Your task to perform on an android device: Set the phone to "Do not disturb". Image 0: 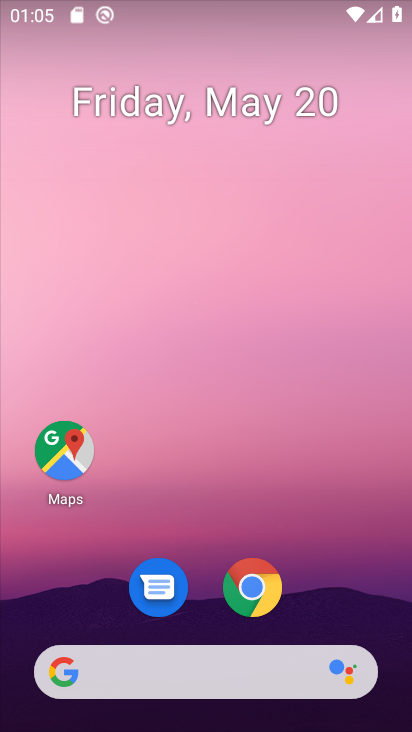
Step 0: drag from (356, 615) to (367, 184)
Your task to perform on an android device: Set the phone to "Do not disturb". Image 1: 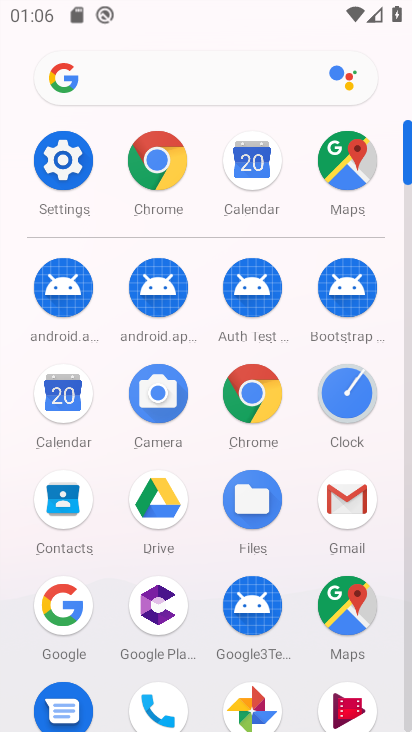
Step 1: click (72, 210)
Your task to perform on an android device: Set the phone to "Do not disturb". Image 2: 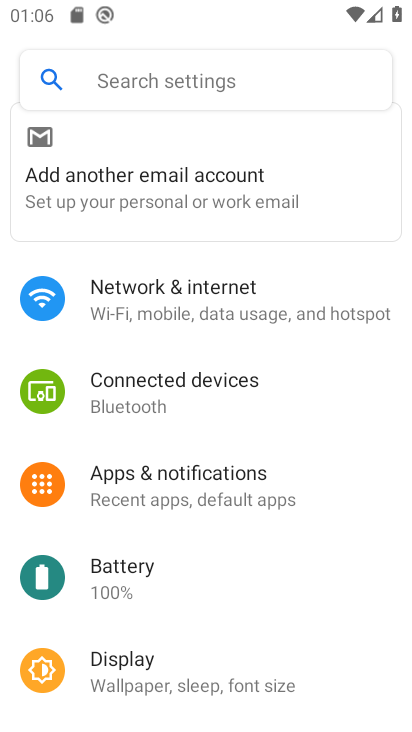
Step 2: drag from (369, 605) to (352, 488)
Your task to perform on an android device: Set the phone to "Do not disturb". Image 3: 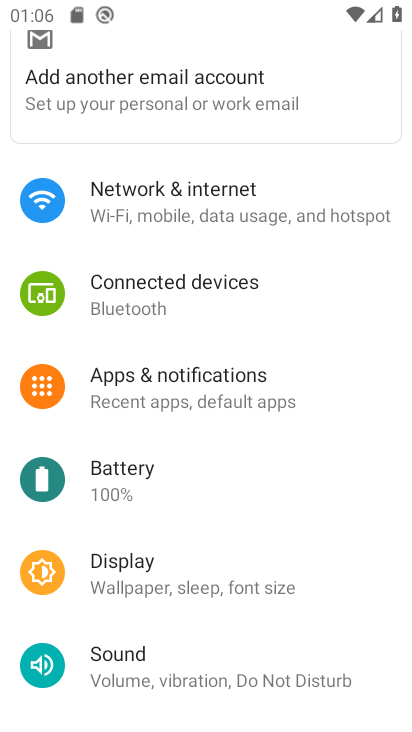
Step 3: drag from (347, 599) to (341, 517)
Your task to perform on an android device: Set the phone to "Do not disturb". Image 4: 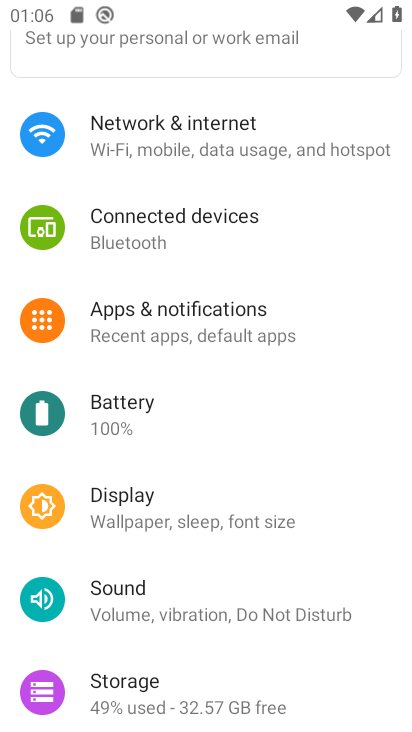
Step 4: drag from (357, 658) to (378, 531)
Your task to perform on an android device: Set the phone to "Do not disturb". Image 5: 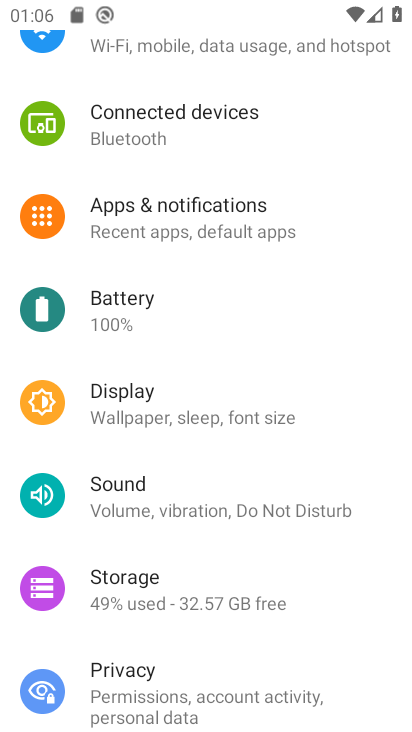
Step 5: drag from (392, 673) to (385, 590)
Your task to perform on an android device: Set the phone to "Do not disturb". Image 6: 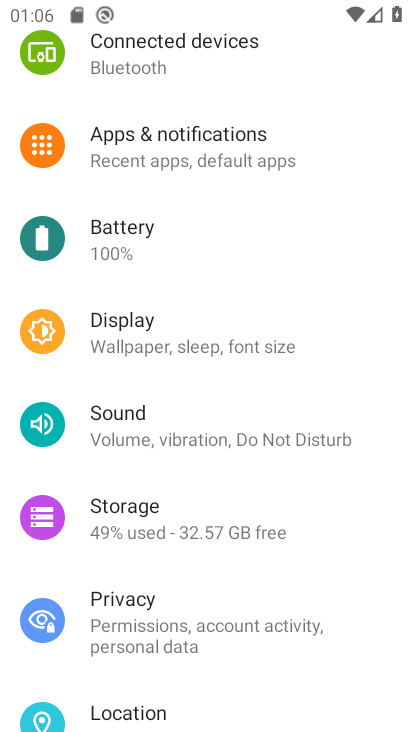
Step 6: drag from (321, 669) to (346, 486)
Your task to perform on an android device: Set the phone to "Do not disturb". Image 7: 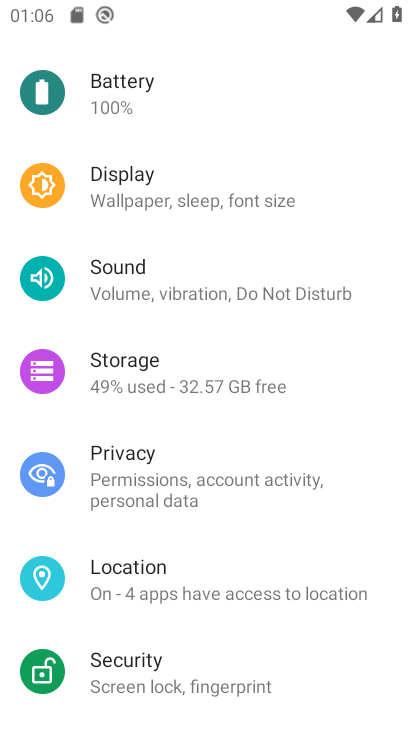
Step 7: drag from (376, 620) to (338, 520)
Your task to perform on an android device: Set the phone to "Do not disturb". Image 8: 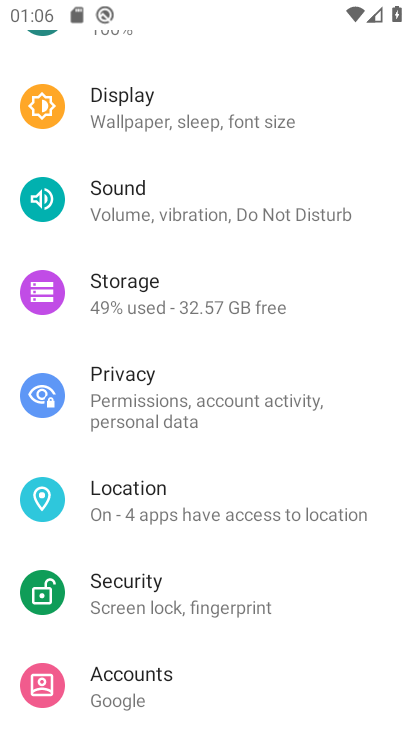
Step 8: drag from (352, 633) to (350, 539)
Your task to perform on an android device: Set the phone to "Do not disturb". Image 9: 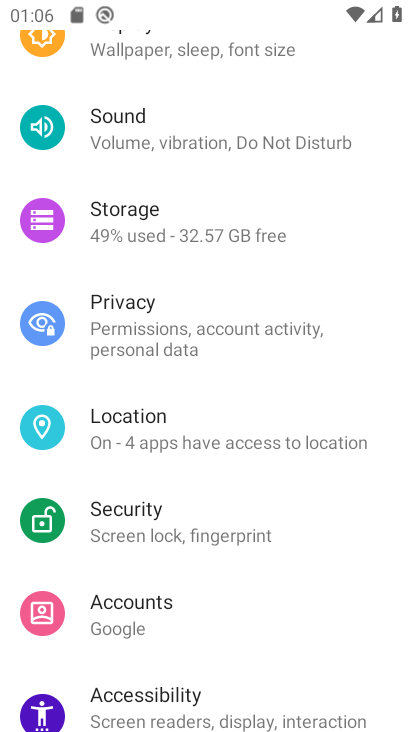
Step 9: drag from (361, 689) to (341, 578)
Your task to perform on an android device: Set the phone to "Do not disturb". Image 10: 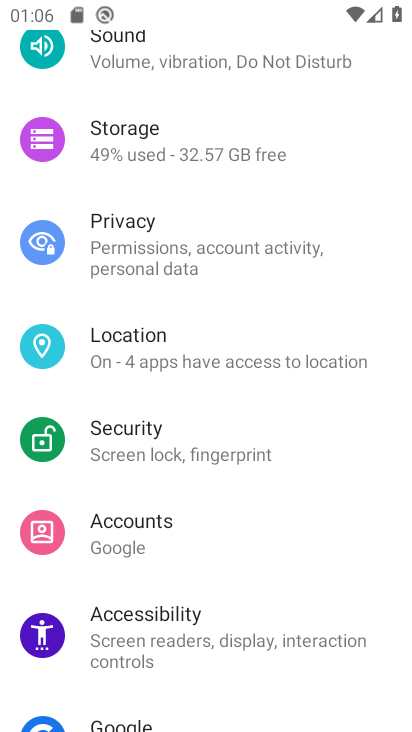
Step 10: drag from (368, 682) to (365, 595)
Your task to perform on an android device: Set the phone to "Do not disturb". Image 11: 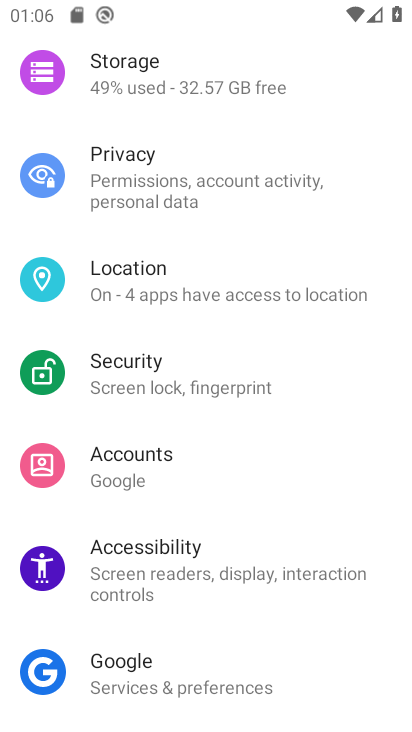
Step 11: drag from (381, 679) to (362, 597)
Your task to perform on an android device: Set the phone to "Do not disturb". Image 12: 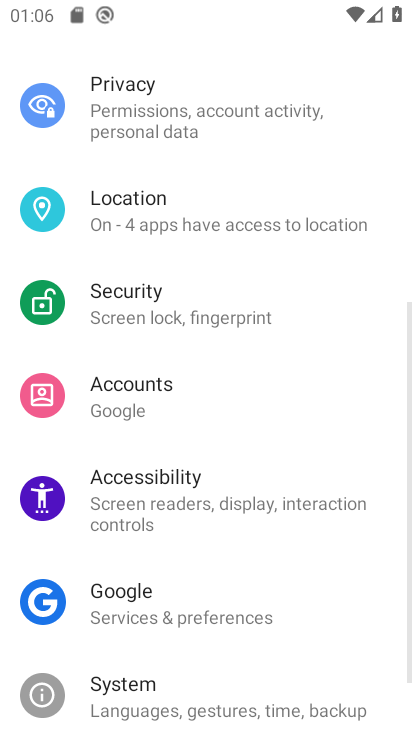
Step 12: drag from (364, 688) to (353, 622)
Your task to perform on an android device: Set the phone to "Do not disturb". Image 13: 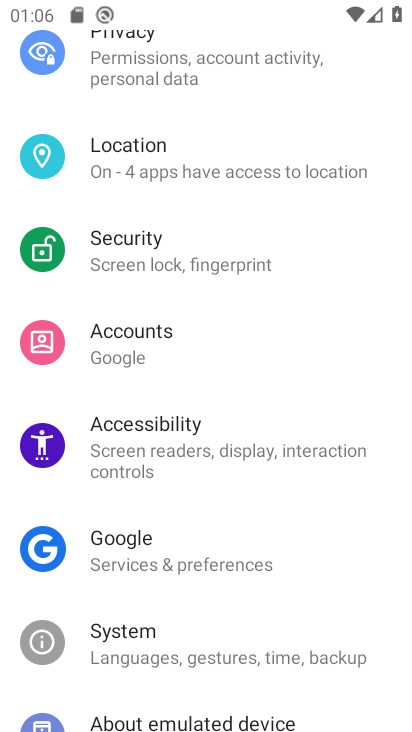
Step 13: drag from (306, 520) to (318, 613)
Your task to perform on an android device: Set the phone to "Do not disturb". Image 14: 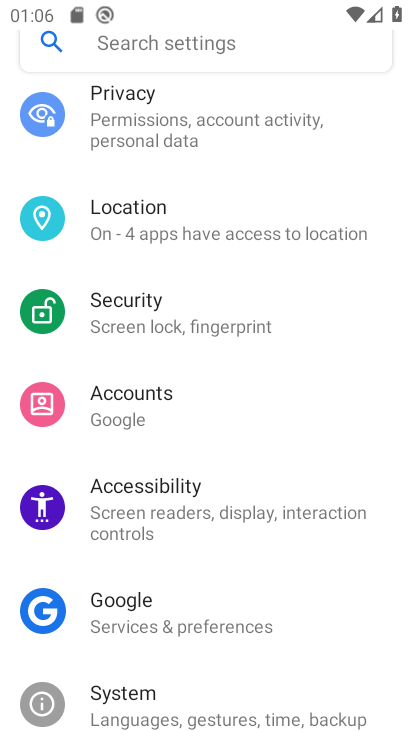
Step 14: drag from (308, 436) to (336, 546)
Your task to perform on an android device: Set the phone to "Do not disturb". Image 15: 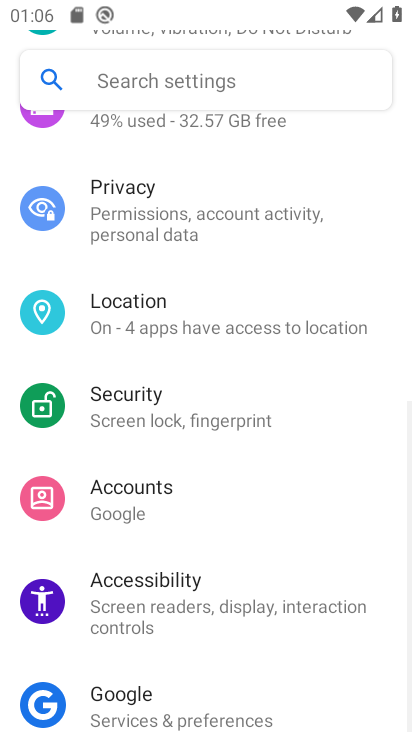
Step 15: drag from (332, 461) to (341, 549)
Your task to perform on an android device: Set the phone to "Do not disturb". Image 16: 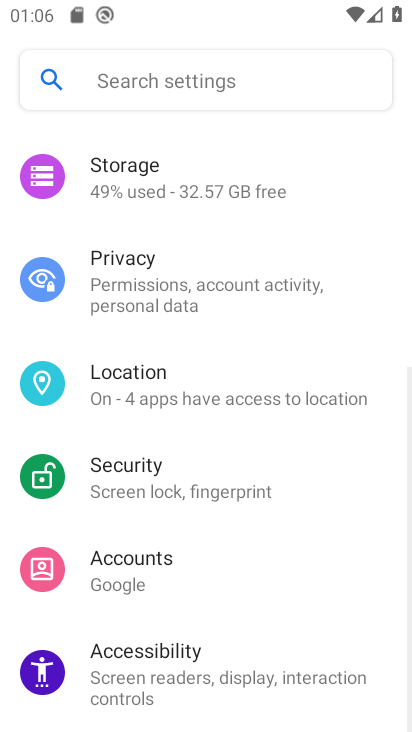
Step 16: drag from (332, 478) to (348, 565)
Your task to perform on an android device: Set the phone to "Do not disturb". Image 17: 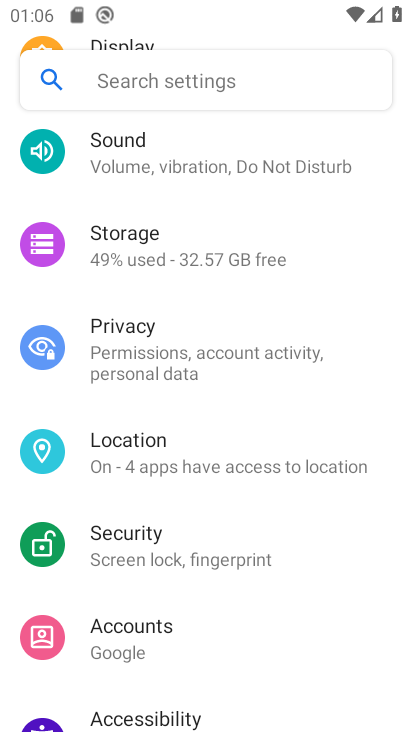
Step 17: click (354, 558)
Your task to perform on an android device: Set the phone to "Do not disturb". Image 18: 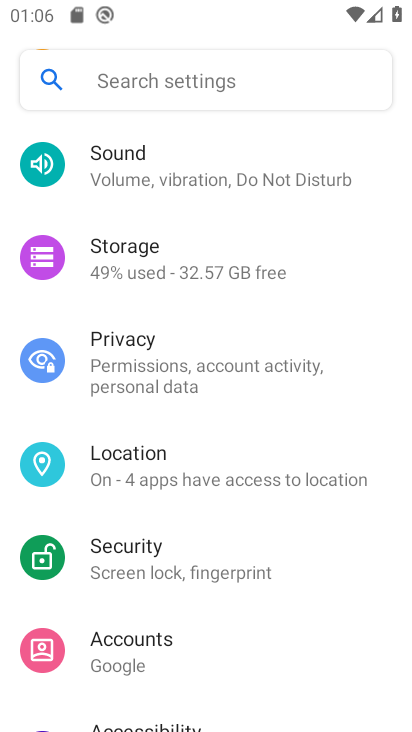
Step 18: drag from (357, 594) to (358, 662)
Your task to perform on an android device: Set the phone to "Do not disturb". Image 19: 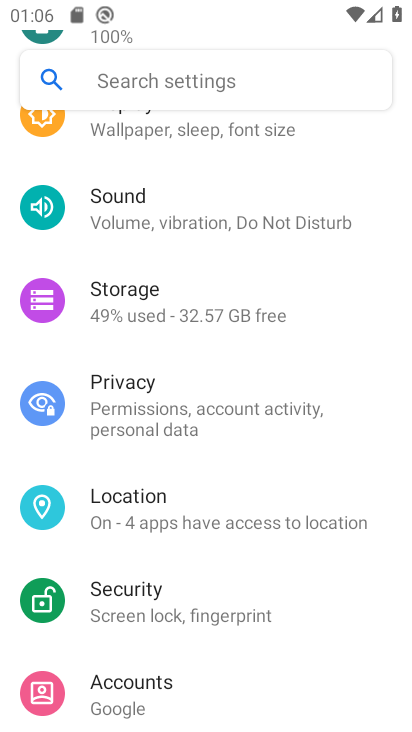
Step 19: drag from (331, 473) to (357, 602)
Your task to perform on an android device: Set the phone to "Do not disturb". Image 20: 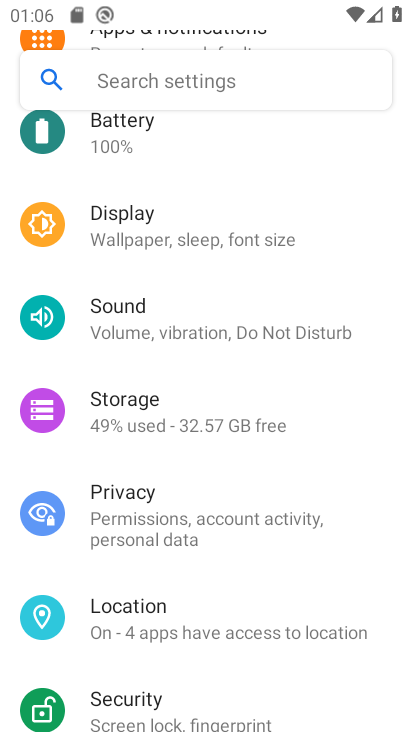
Step 20: drag from (341, 483) to (352, 609)
Your task to perform on an android device: Set the phone to "Do not disturb". Image 21: 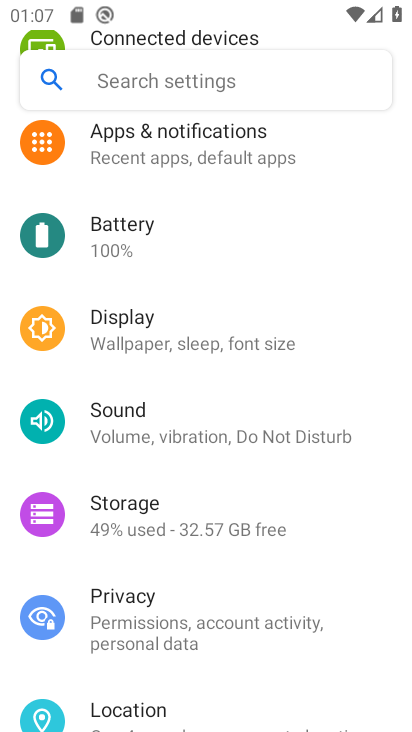
Step 21: drag from (370, 553) to (381, 637)
Your task to perform on an android device: Set the phone to "Do not disturb". Image 22: 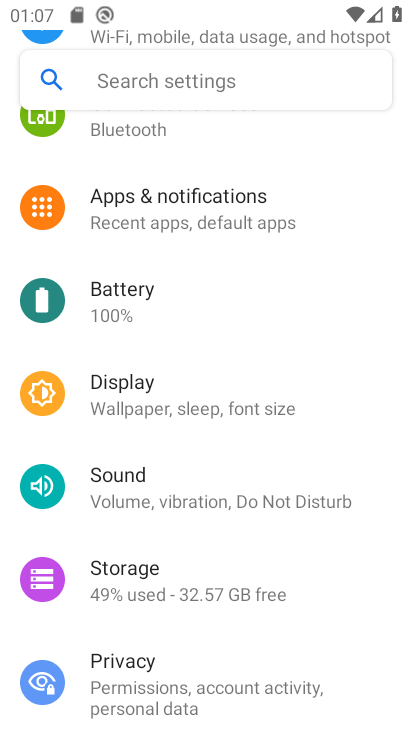
Step 22: drag from (341, 453) to (363, 565)
Your task to perform on an android device: Set the phone to "Do not disturb". Image 23: 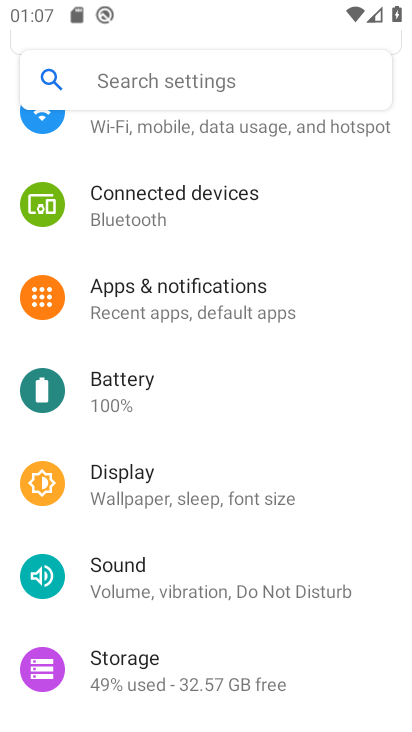
Step 23: drag from (366, 475) to (381, 593)
Your task to perform on an android device: Set the phone to "Do not disturb". Image 24: 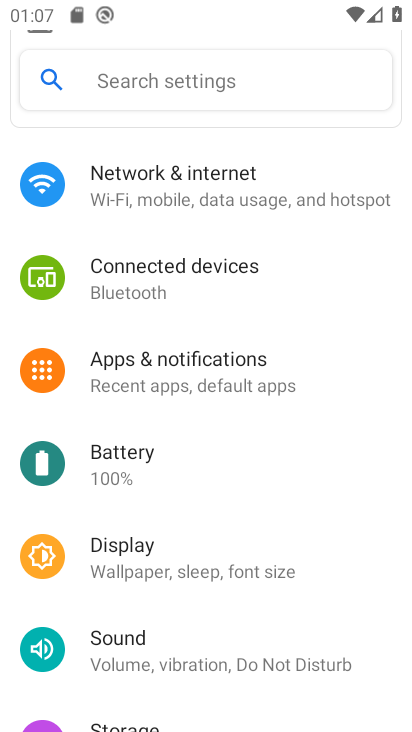
Step 24: drag from (317, 420) to (337, 522)
Your task to perform on an android device: Set the phone to "Do not disturb". Image 25: 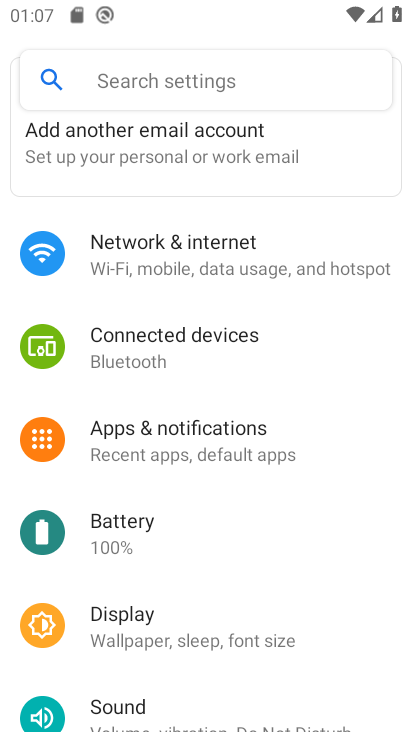
Step 25: drag from (347, 516) to (299, 388)
Your task to perform on an android device: Set the phone to "Do not disturb". Image 26: 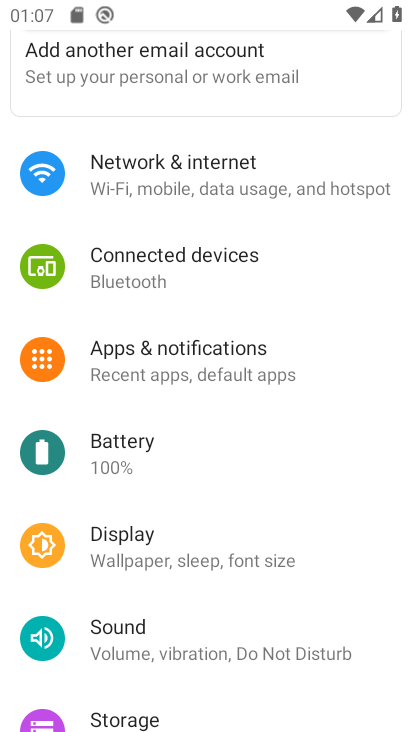
Step 26: drag from (378, 466) to (333, 369)
Your task to perform on an android device: Set the phone to "Do not disturb". Image 27: 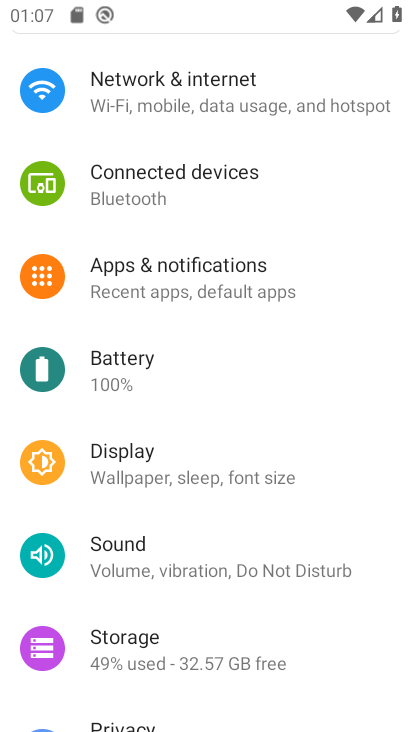
Step 27: drag from (356, 452) to (313, 352)
Your task to perform on an android device: Set the phone to "Do not disturb". Image 28: 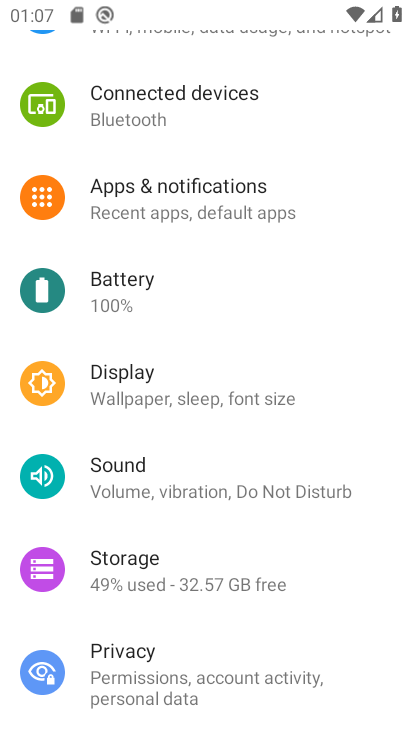
Step 28: click (382, 320)
Your task to perform on an android device: Set the phone to "Do not disturb". Image 29: 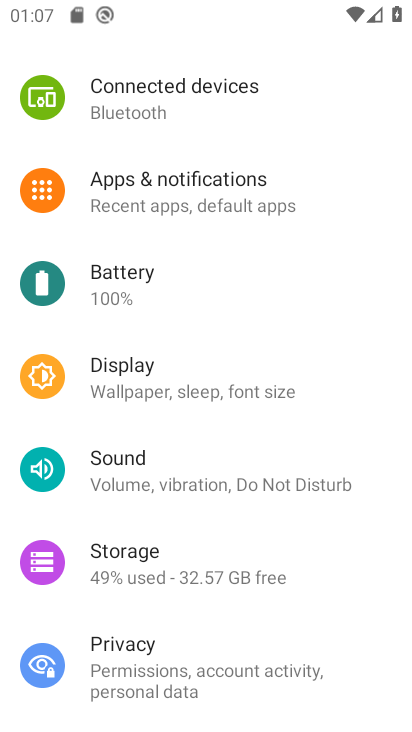
Step 29: click (313, 498)
Your task to perform on an android device: Set the phone to "Do not disturb". Image 30: 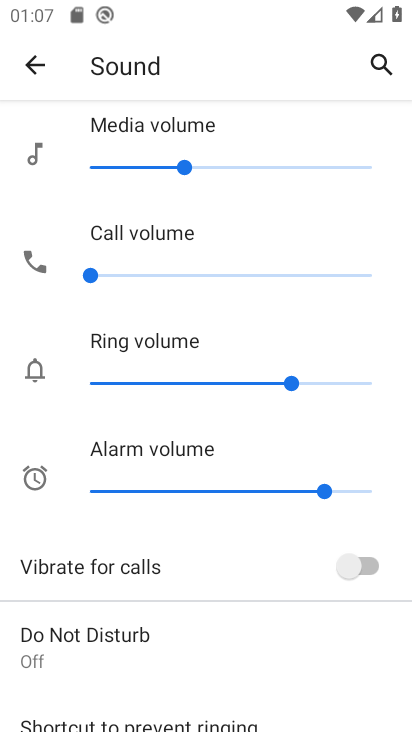
Step 30: drag from (264, 576) to (237, 426)
Your task to perform on an android device: Set the phone to "Do not disturb". Image 31: 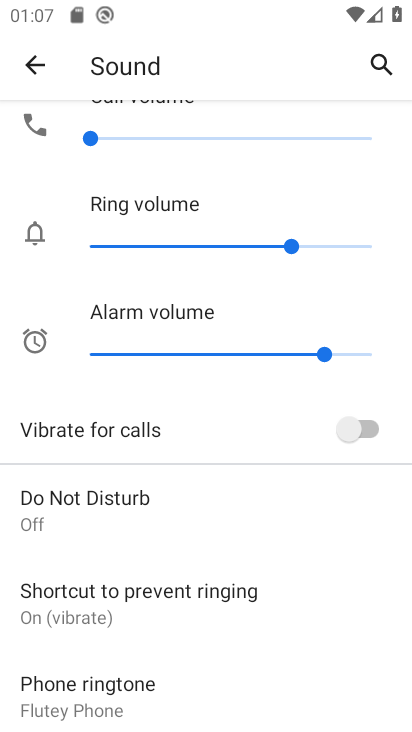
Step 31: click (182, 512)
Your task to perform on an android device: Set the phone to "Do not disturb". Image 32: 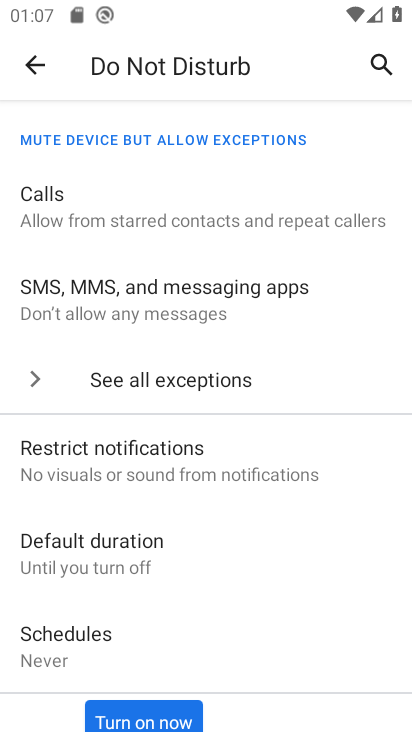
Step 32: drag from (152, 646) to (117, 510)
Your task to perform on an android device: Set the phone to "Do not disturb". Image 33: 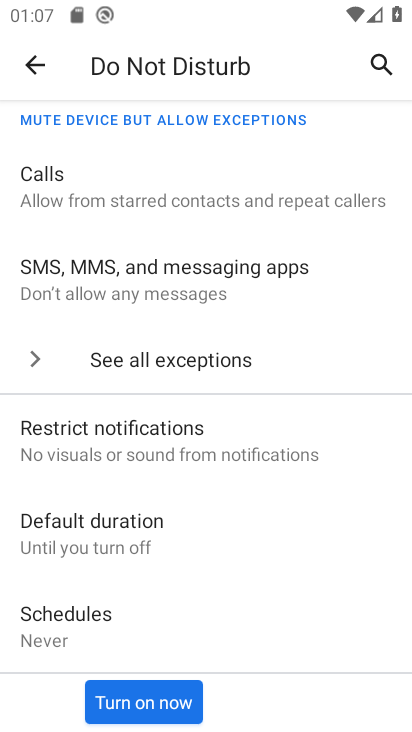
Step 33: click (159, 707)
Your task to perform on an android device: Set the phone to "Do not disturb". Image 34: 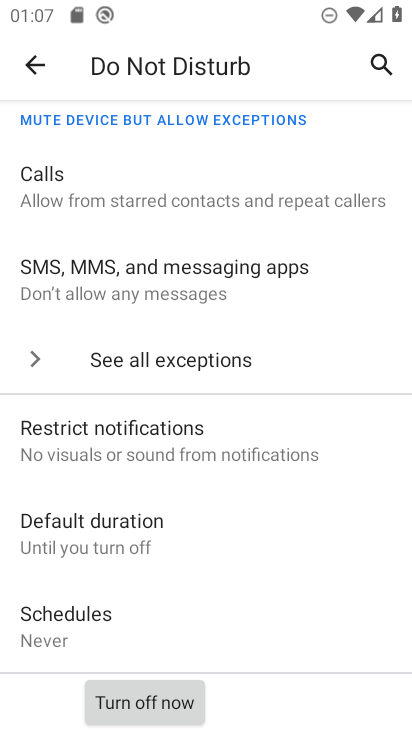
Step 34: task complete